Your task to perform on an android device: Open settings on Google Maps Image 0: 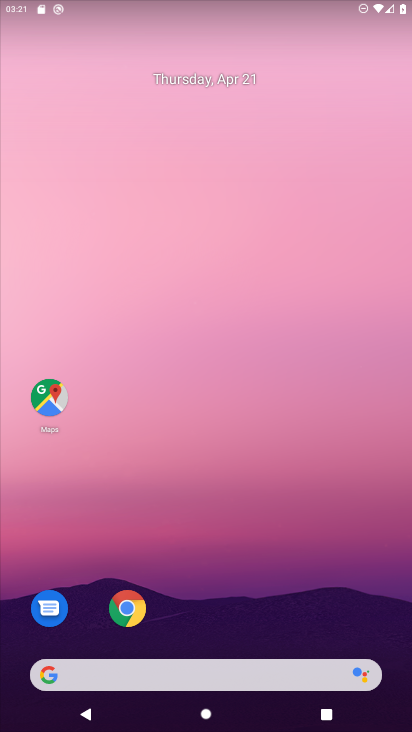
Step 0: drag from (201, 312) to (230, 122)
Your task to perform on an android device: Open settings on Google Maps Image 1: 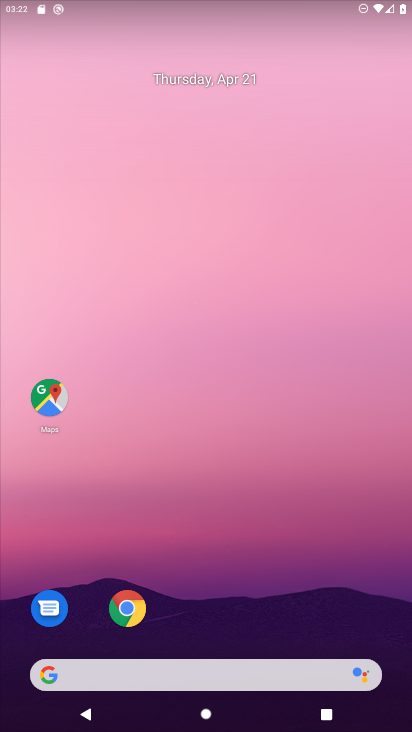
Step 1: drag from (211, 525) to (206, 199)
Your task to perform on an android device: Open settings on Google Maps Image 2: 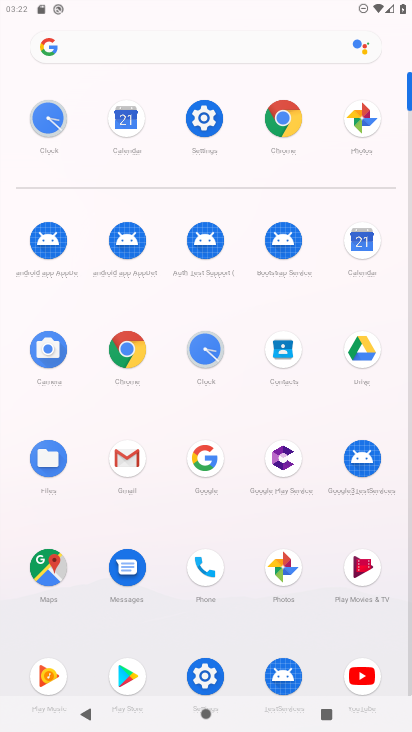
Step 2: click (53, 564)
Your task to perform on an android device: Open settings on Google Maps Image 3: 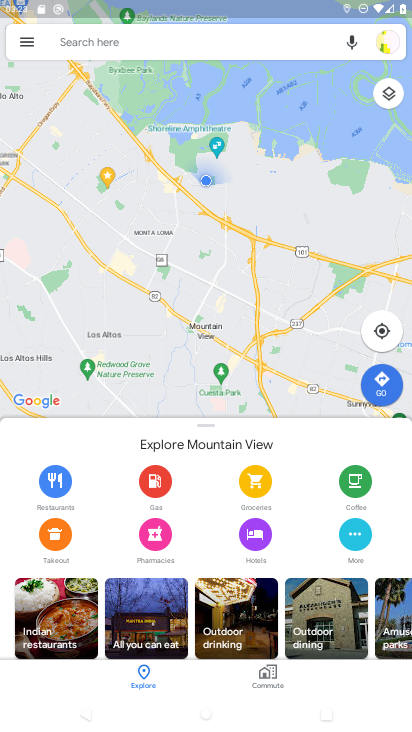
Step 3: click (30, 36)
Your task to perform on an android device: Open settings on Google Maps Image 4: 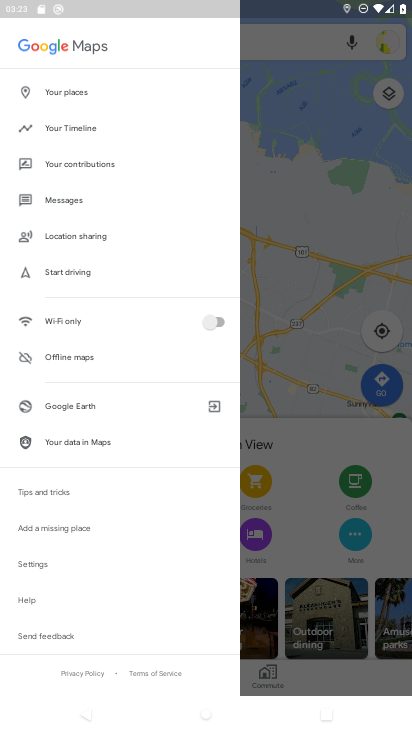
Step 4: click (60, 561)
Your task to perform on an android device: Open settings on Google Maps Image 5: 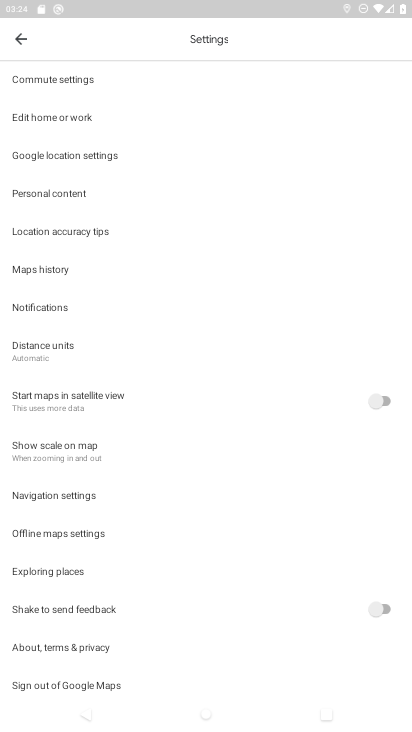
Step 5: task complete